Your task to perform on an android device: toggle javascript in the chrome app Image 0: 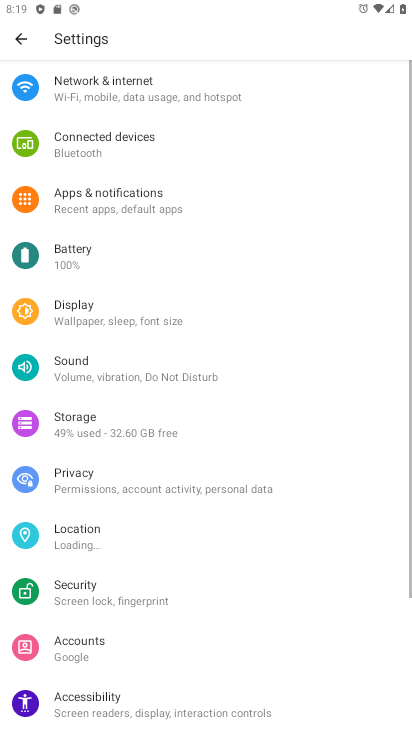
Step 0: press home button
Your task to perform on an android device: toggle javascript in the chrome app Image 1: 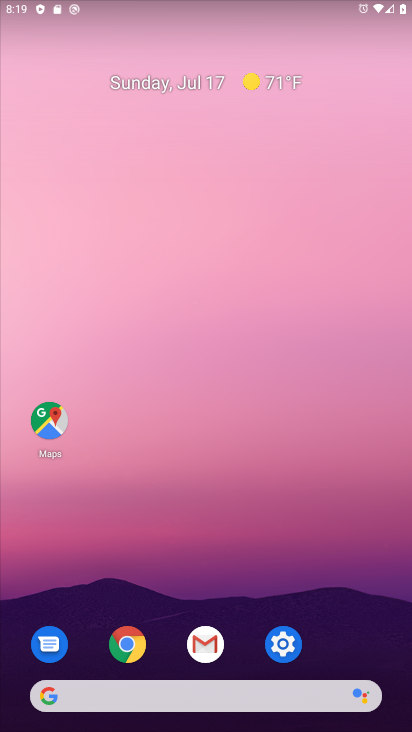
Step 1: click (135, 639)
Your task to perform on an android device: toggle javascript in the chrome app Image 2: 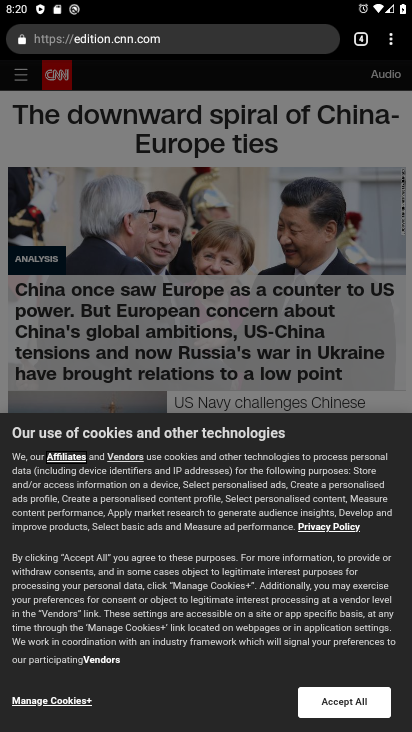
Step 2: task complete